Your task to perform on an android device: Open maps Image 0: 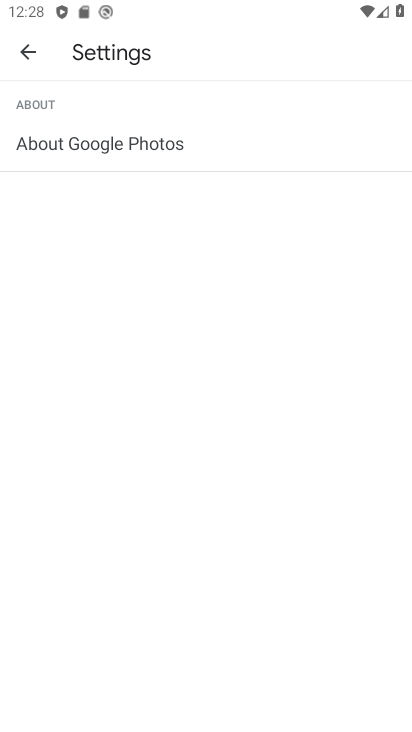
Step 0: press home button
Your task to perform on an android device: Open maps Image 1: 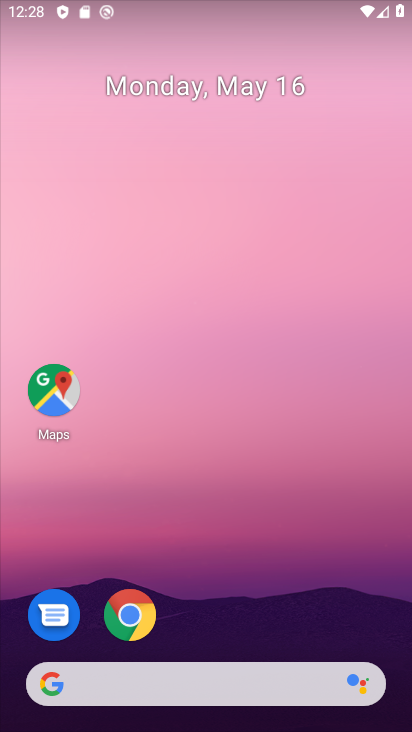
Step 1: click (50, 397)
Your task to perform on an android device: Open maps Image 2: 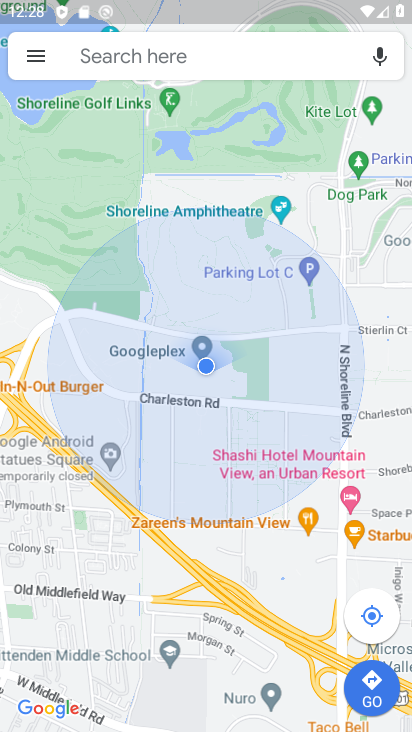
Step 2: task complete